Your task to perform on an android device: open chrome privacy settings Image 0: 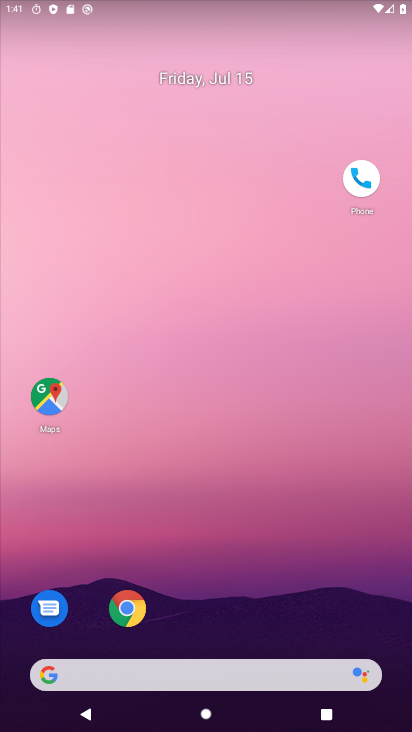
Step 0: drag from (196, 618) to (231, 116)
Your task to perform on an android device: open chrome privacy settings Image 1: 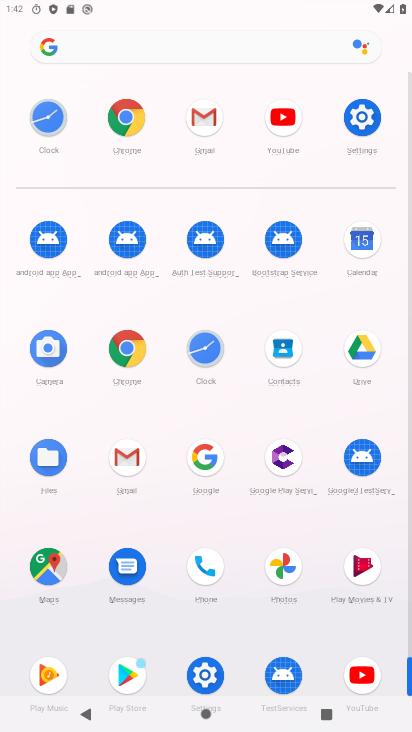
Step 1: click (361, 124)
Your task to perform on an android device: open chrome privacy settings Image 2: 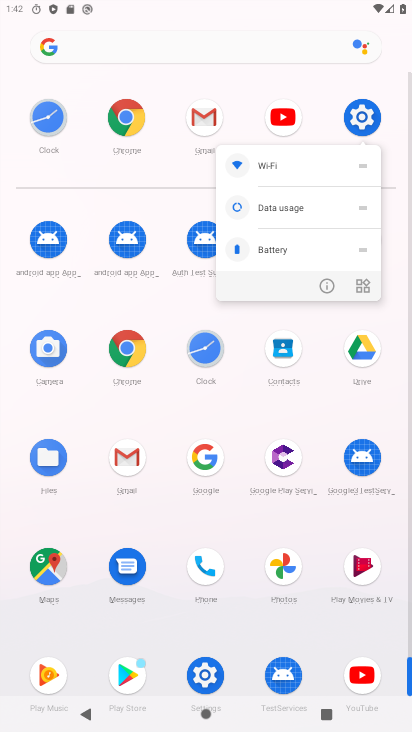
Step 2: click (120, 342)
Your task to perform on an android device: open chrome privacy settings Image 3: 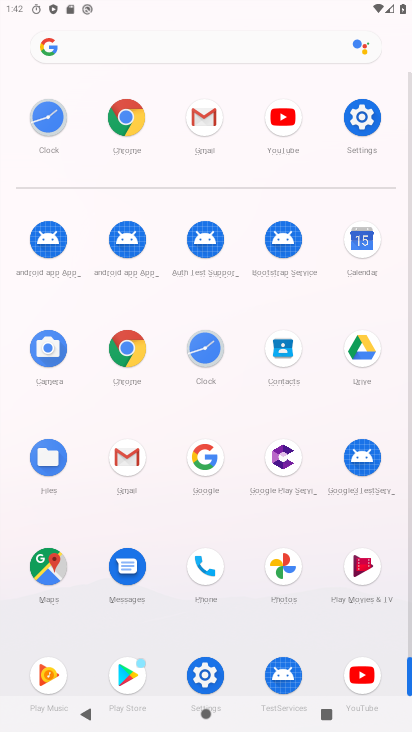
Step 3: click (130, 342)
Your task to perform on an android device: open chrome privacy settings Image 4: 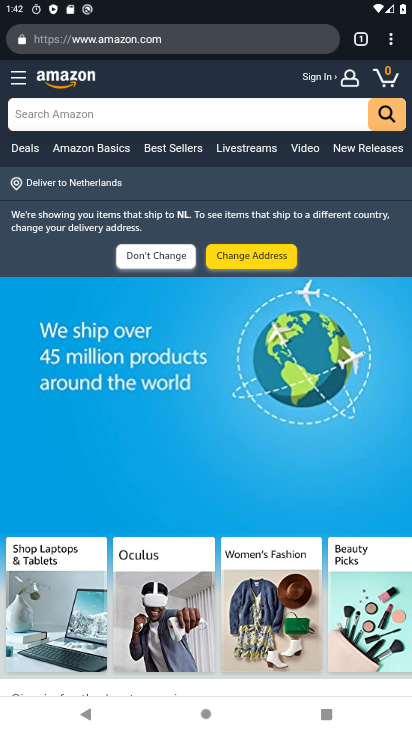
Step 4: drag from (390, 31) to (285, 466)
Your task to perform on an android device: open chrome privacy settings Image 5: 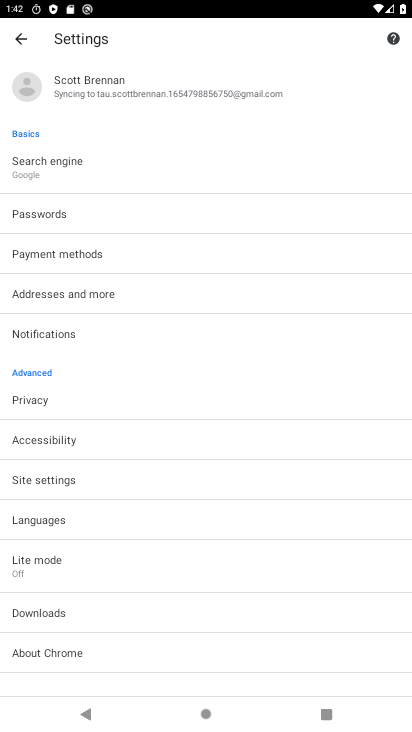
Step 5: drag from (137, 616) to (201, 233)
Your task to perform on an android device: open chrome privacy settings Image 6: 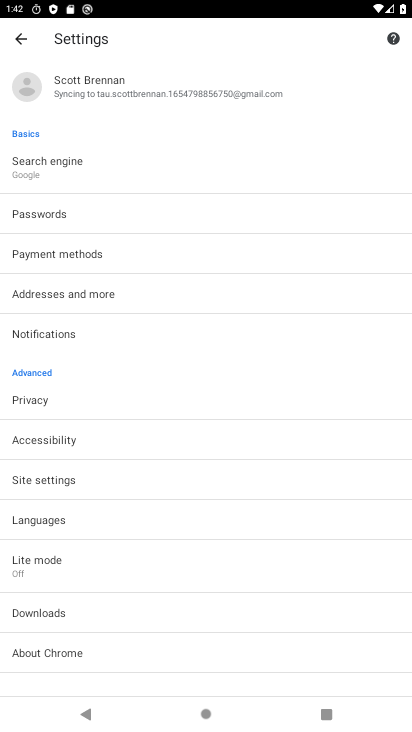
Step 6: click (45, 398)
Your task to perform on an android device: open chrome privacy settings Image 7: 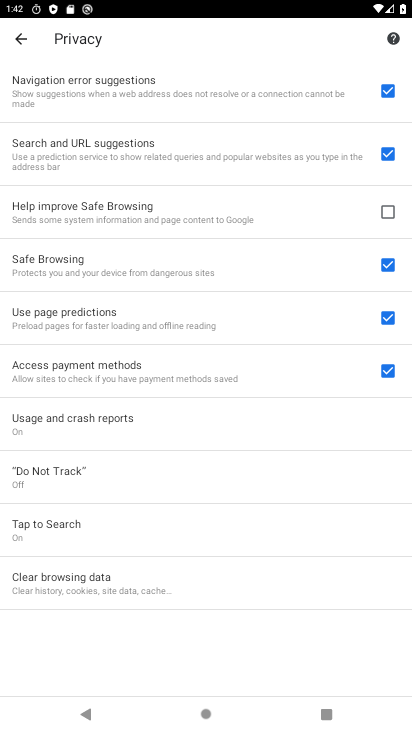
Step 7: task complete